Your task to perform on an android device: empty trash in google photos Image 0: 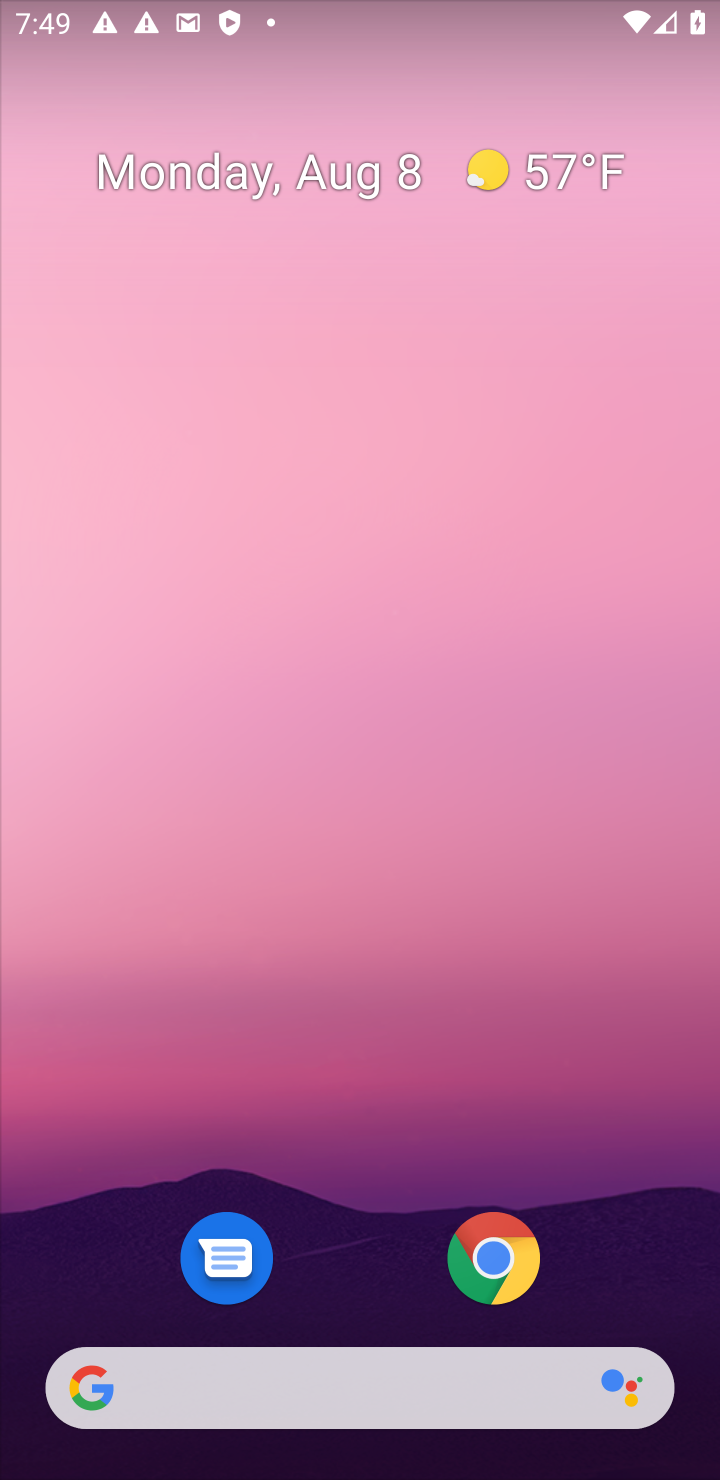
Step 0: click (499, 1275)
Your task to perform on an android device: empty trash in google photos Image 1: 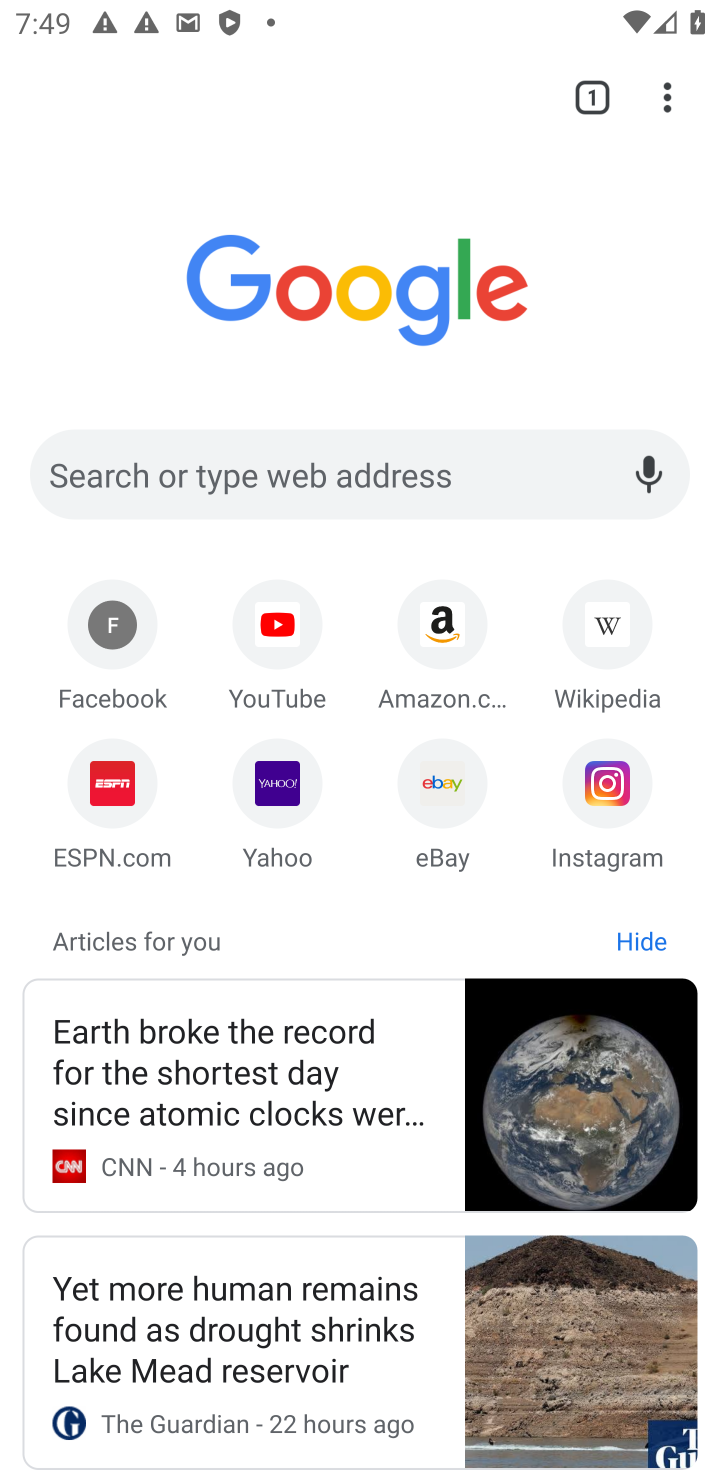
Step 1: task complete